Your task to perform on an android device: turn off location history Image 0: 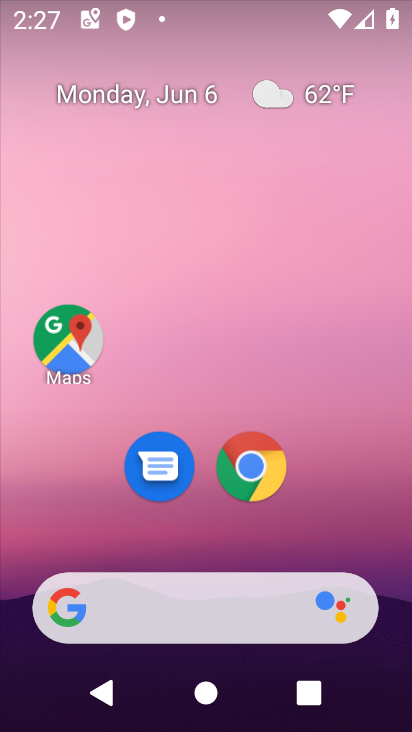
Step 0: drag from (256, 711) to (194, 252)
Your task to perform on an android device: turn off location history Image 1: 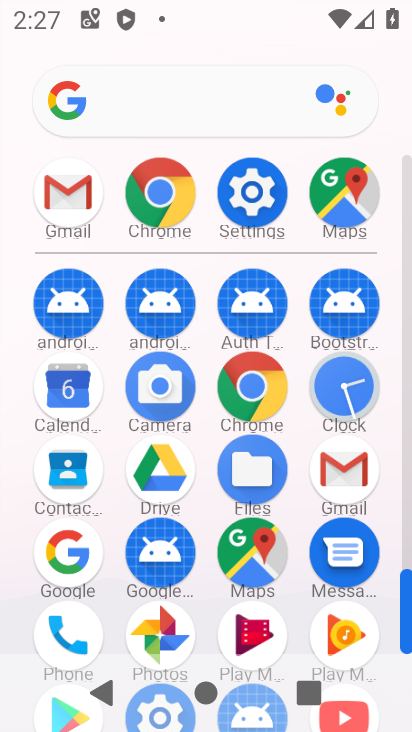
Step 1: click (247, 187)
Your task to perform on an android device: turn off location history Image 2: 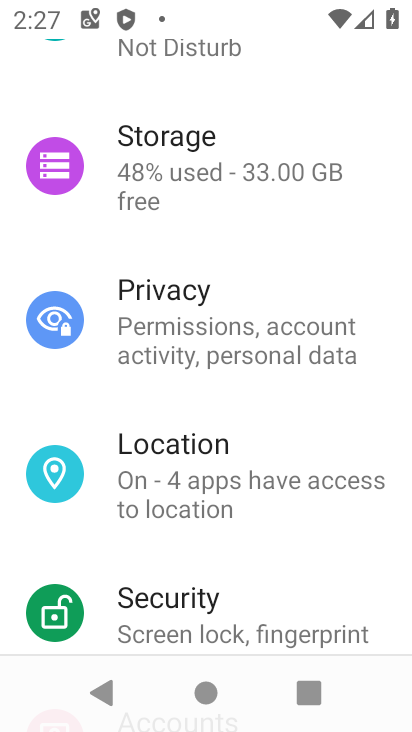
Step 2: drag from (169, 456) to (156, 163)
Your task to perform on an android device: turn off location history Image 3: 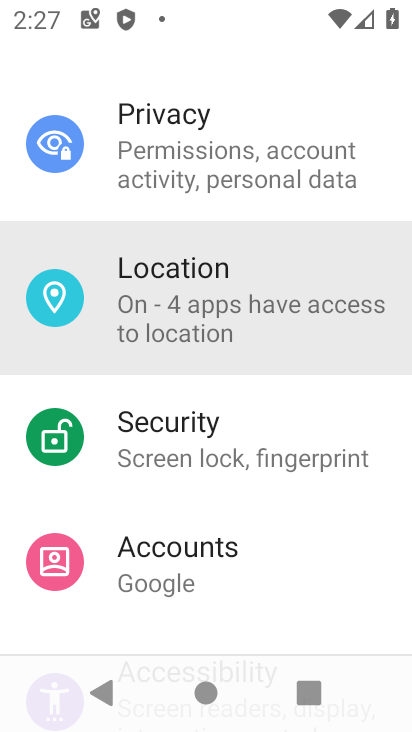
Step 3: drag from (200, 400) to (171, 164)
Your task to perform on an android device: turn off location history Image 4: 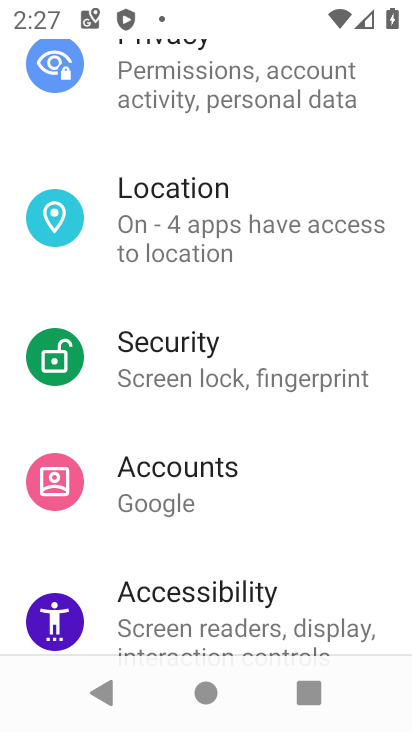
Step 4: drag from (182, 448) to (184, 186)
Your task to perform on an android device: turn off location history Image 5: 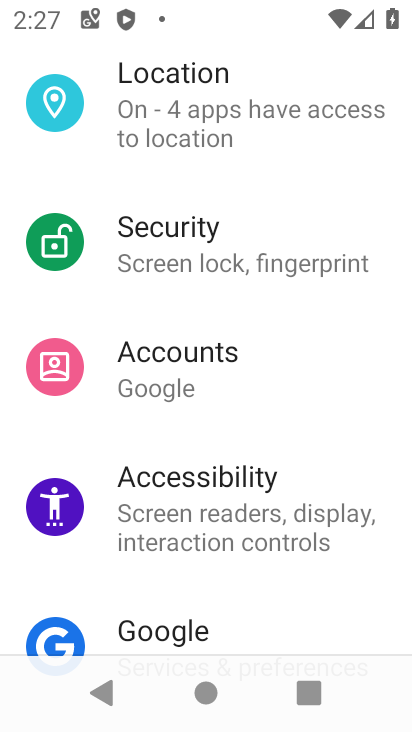
Step 5: drag from (180, 344) to (180, 210)
Your task to perform on an android device: turn off location history Image 6: 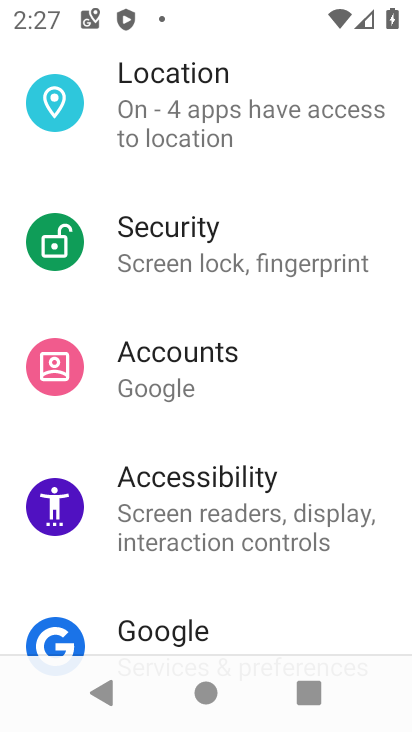
Step 6: drag from (164, 208) to (164, 3)
Your task to perform on an android device: turn off location history Image 7: 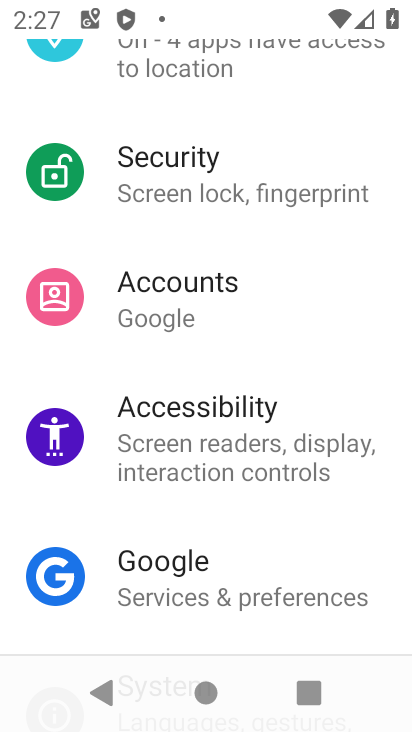
Step 7: drag from (145, 211) to (147, 684)
Your task to perform on an android device: turn off location history Image 8: 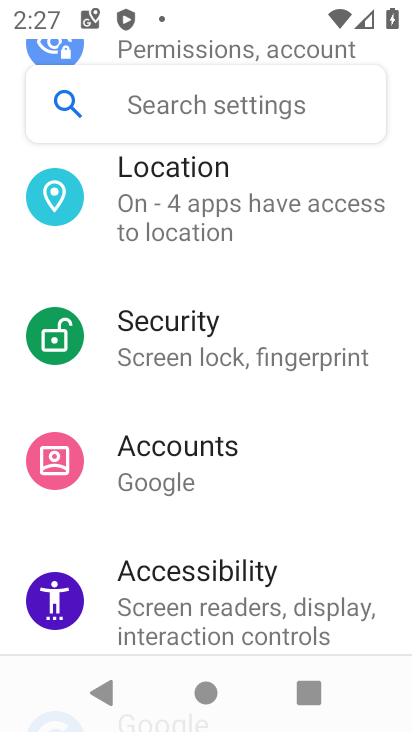
Step 8: drag from (136, 333) to (172, 651)
Your task to perform on an android device: turn off location history Image 9: 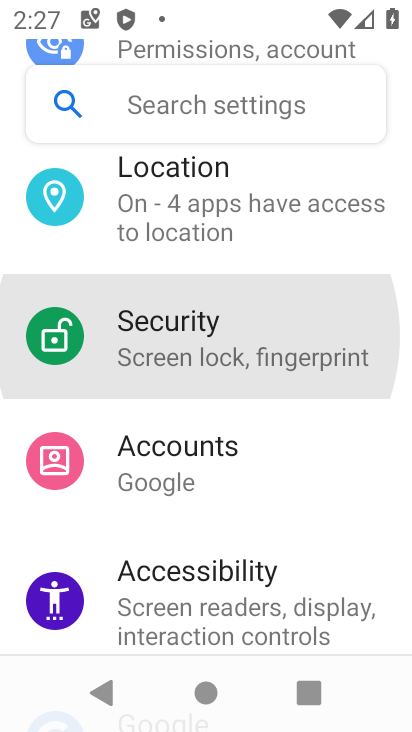
Step 9: drag from (172, 295) to (217, 578)
Your task to perform on an android device: turn off location history Image 10: 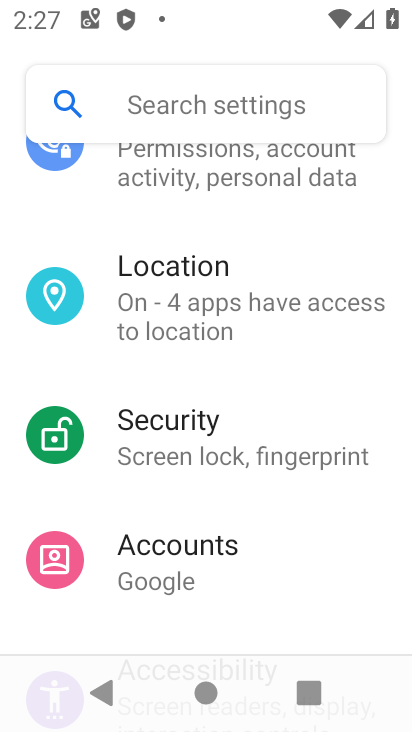
Step 10: drag from (178, 224) to (186, 382)
Your task to perform on an android device: turn off location history Image 11: 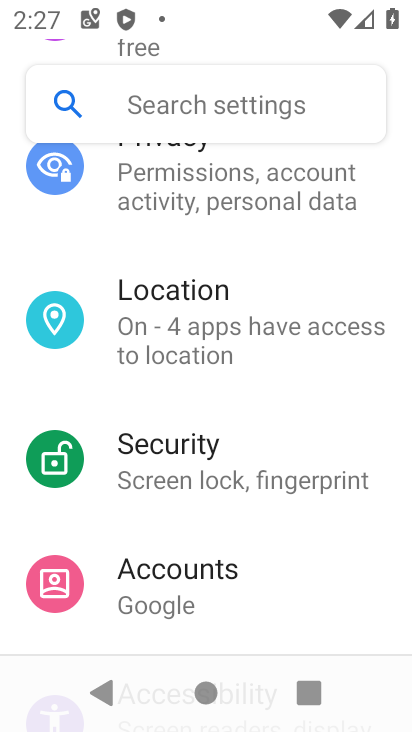
Step 11: click (183, 323)
Your task to perform on an android device: turn off location history Image 12: 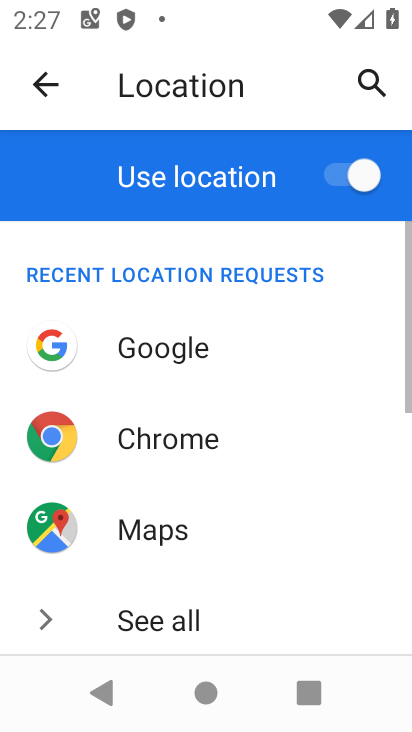
Step 12: drag from (200, 544) to (200, 223)
Your task to perform on an android device: turn off location history Image 13: 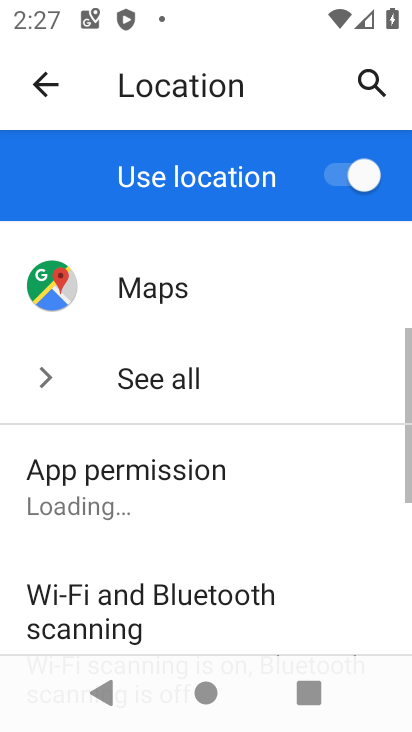
Step 13: drag from (200, 397) to (211, 208)
Your task to perform on an android device: turn off location history Image 14: 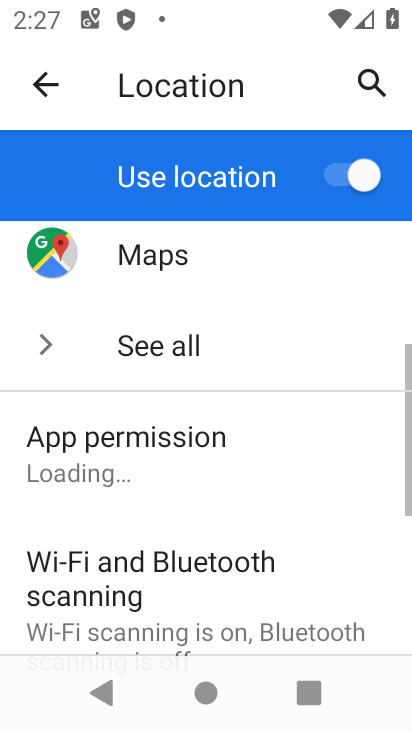
Step 14: drag from (229, 436) to (229, 211)
Your task to perform on an android device: turn off location history Image 15: 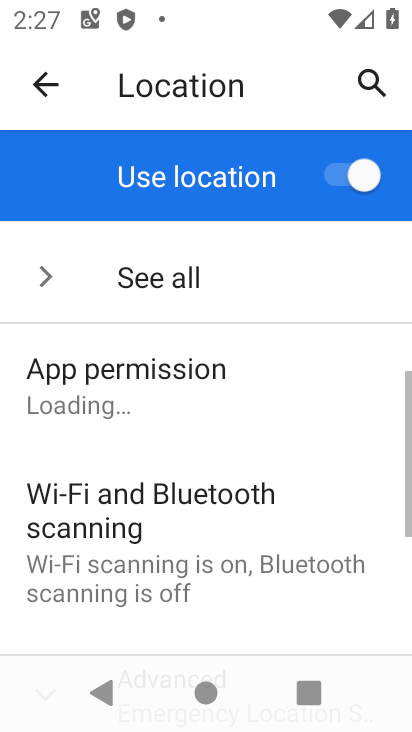
Step 15: drag from (211, 466) to (209, 333)
Your task to perform on an android device: turn off location history Image 16: 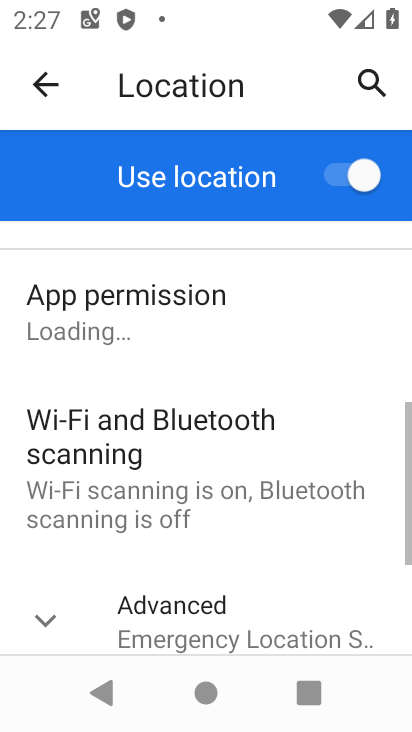
Step 16: drag from (230, 494) to (218, 275)
Your task to perform on an android device: turn off location history Image 17: 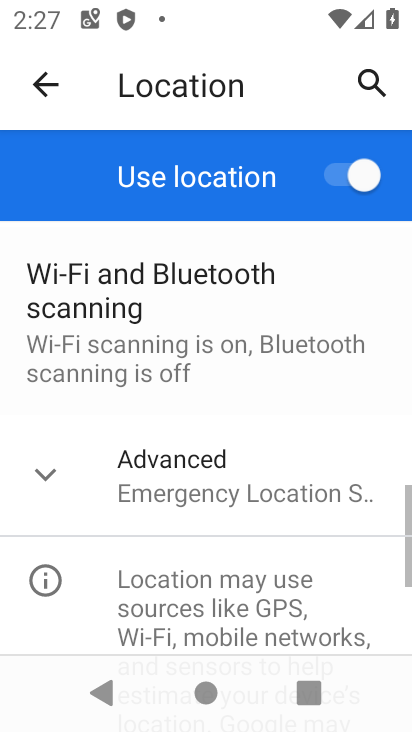
Step 17: drag from (223, 480) to (245, 306)
Your task to perform on an android device: turn off location history Image 18: 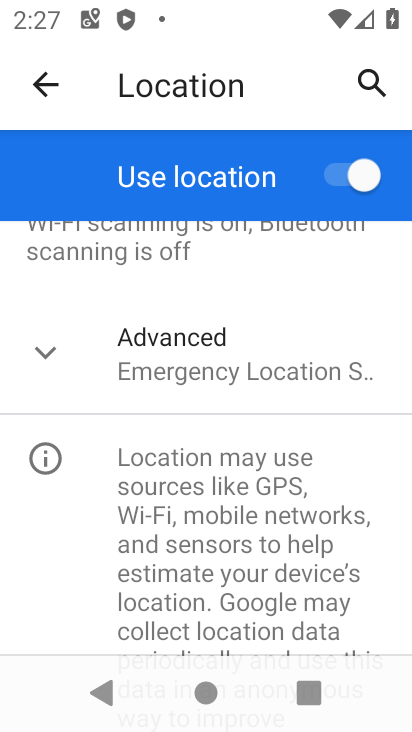
Step 18: click (170, 357)
Your task to perform on an android device: turn off location history Image 19: 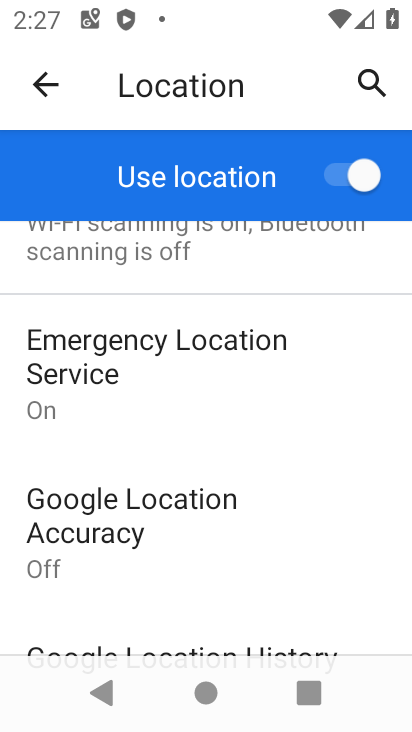
Step 19: drag from (164, 504) to (164, 205)
Your task to perform on an android device: turn off location history Image 20: 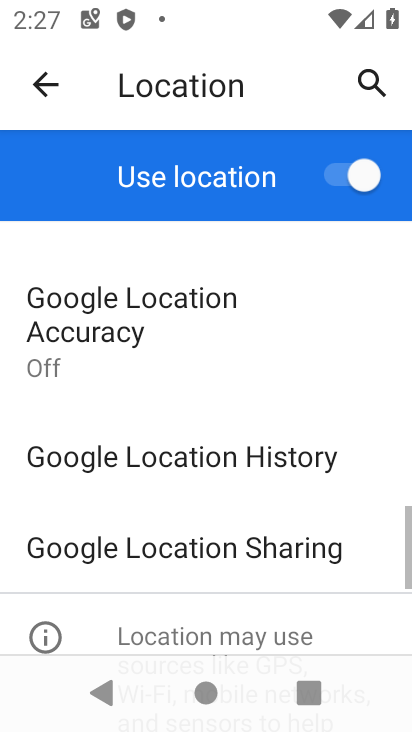
Step 20: drag from (189, 543) to (189, 263)
Your task to perform on an android device: turn off location history Image 21: 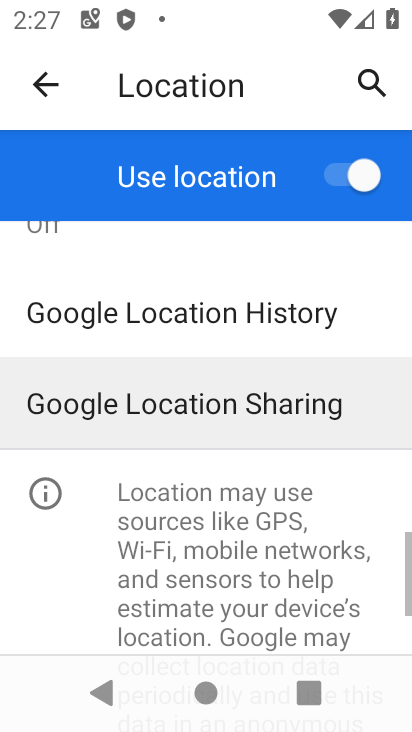
Step 21: drag from (185, 415) to (185, 291)
Your task to perform on an android device: turn off location history Image 22: 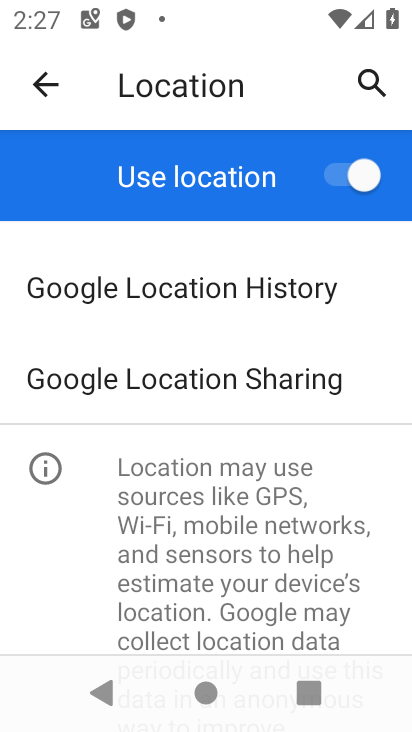
Step 22: click (102, 283)
Your task to perform on an android device: turn off location history Image 23: 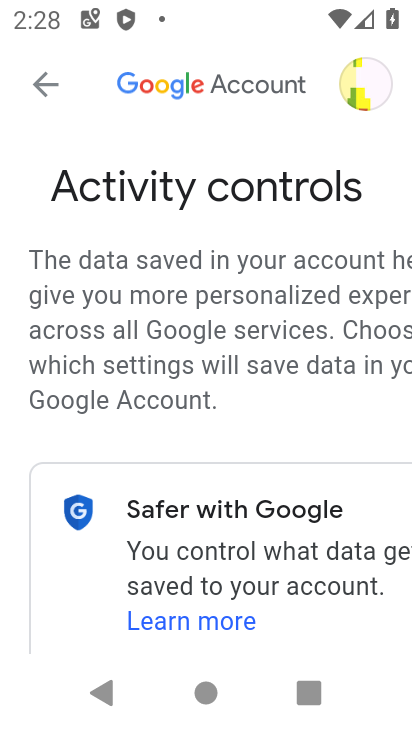
Step 23: drag from (219, 371) to (251, 42)
Your task to perform on an android device: turn off location history Image 24: 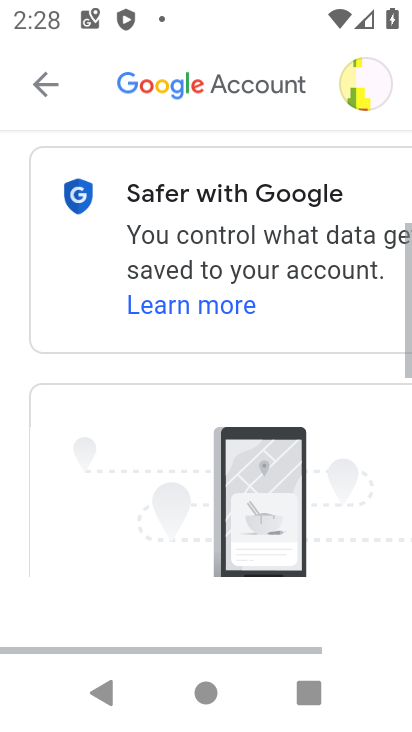
Step 24: drag from (224, 391) to (222, 138)
Your task to perform on an android device: turn off location history Image 25: 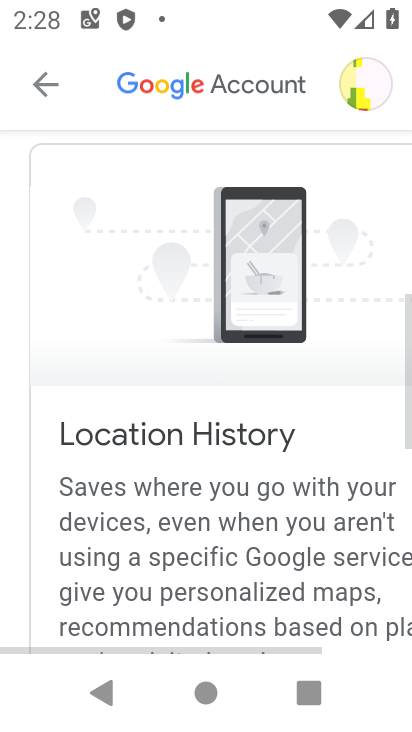
Step 25: drag from (175, 296) to (175, 127)
Your task to perform on an android device: turn off location history Image 26: 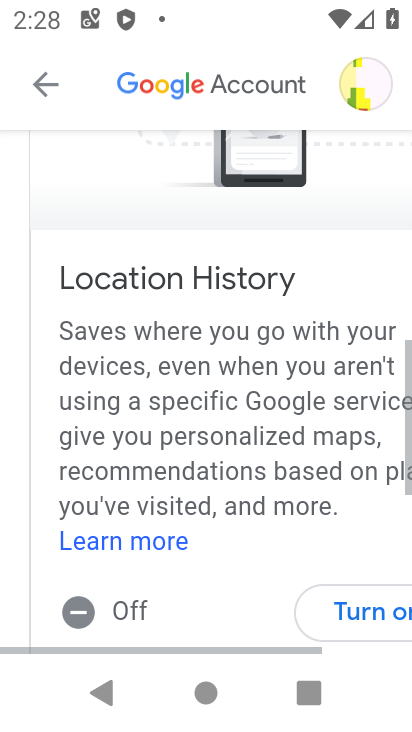
Step 26: drag from (204, 328) to (199, 141)
Your task to perform on an android device: turn off location history Image 27: 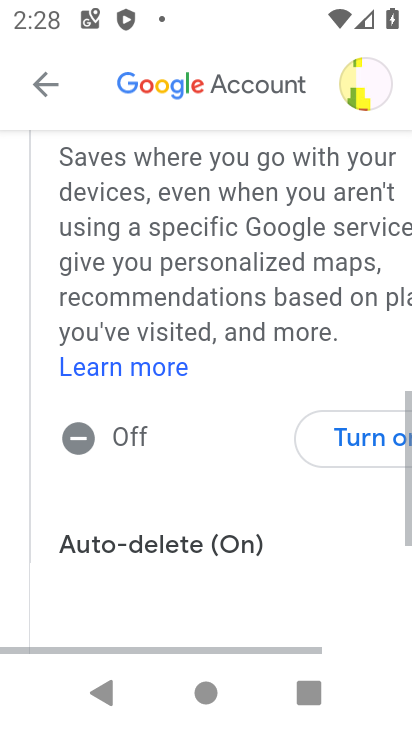
Step 27: drag from (166, 527) to (161, 213)
Your task to perform on an android device: turn off location history Image 28: 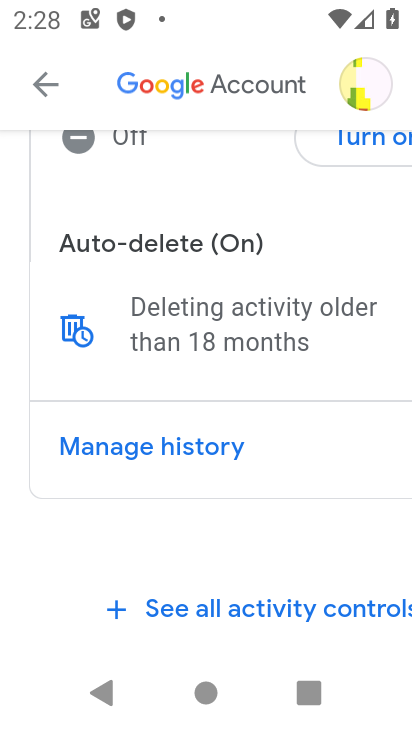
Step 28: drag from (319, 578) to (273, 241)
Your task to perform on an android device: turn off location history Image 29: 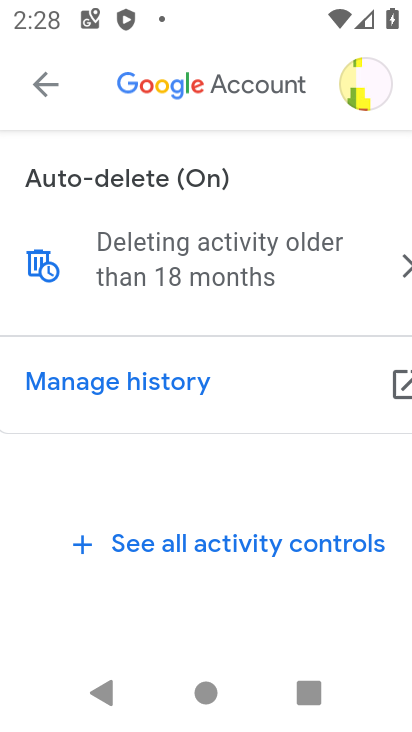
Step 29: drag from (196, 452) to (172, 125)
Your task to perform on an android device: turn off location history Image 30: 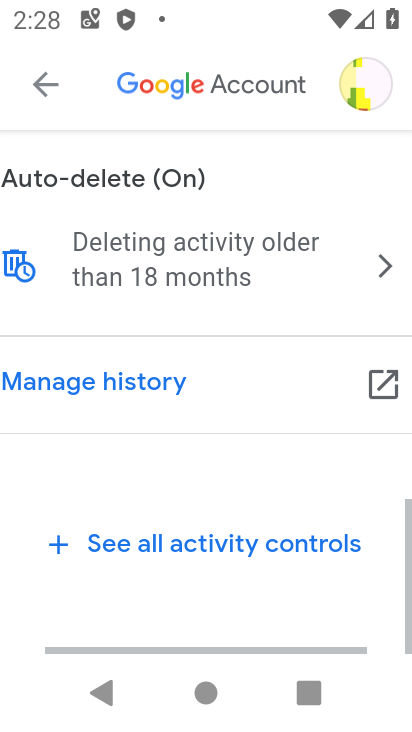
Step 30: drag from (182, 256) to (191, 195)
Your task to perform on an android device: turn off location history Image 31: 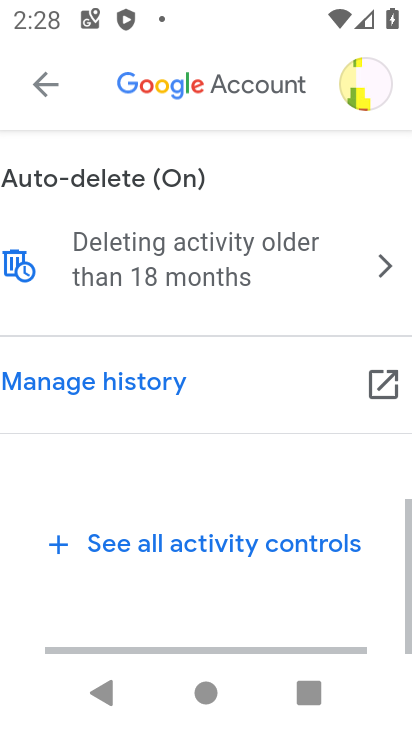
Step 31: drag from (218, 230) to (233, 169)
Your task to perform on an android device: turn off location history Image 32: 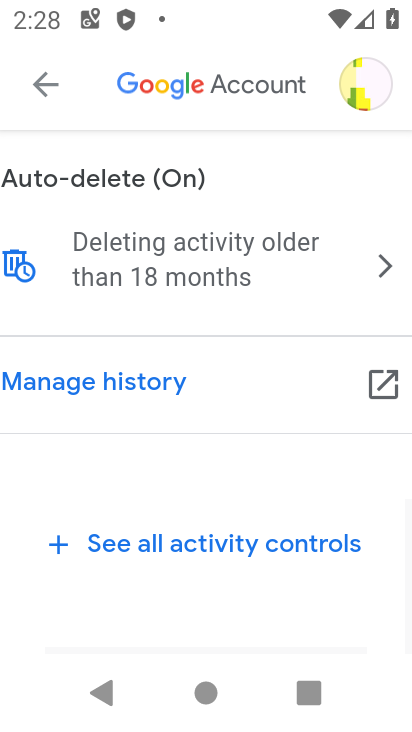
Step 32: drag from (210, 332) to (210, 163)
Your task to perform on an android device: turn off location history Image 33: 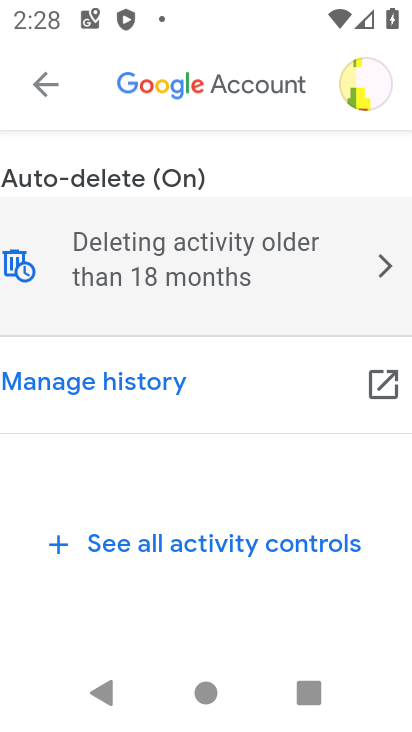
Step 33: click (26, 271)
Your task to perform on an android device: turn off location history Image 34: 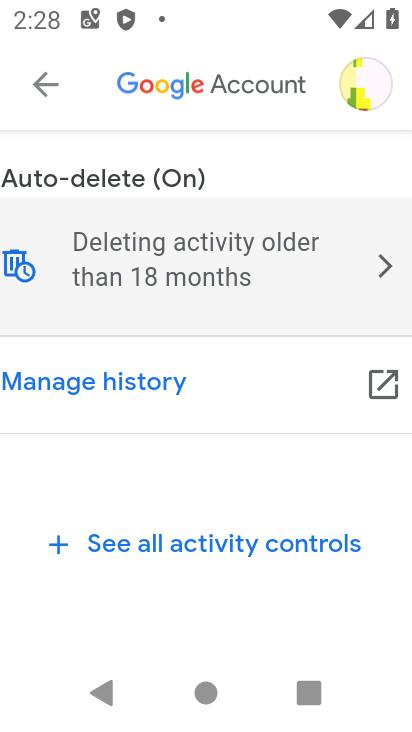
Step 34: click (26, 271)
Your task to perform on an android device: turn off location history Image 35: 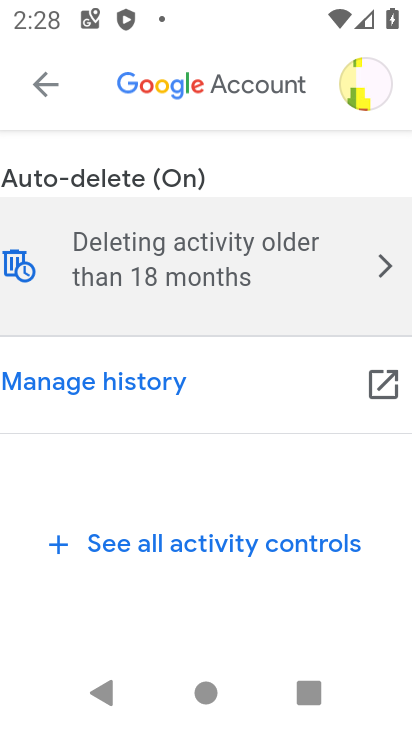
Step 35: click (26, 271)
Your task to perform on an android device: turn off location history Image 36: 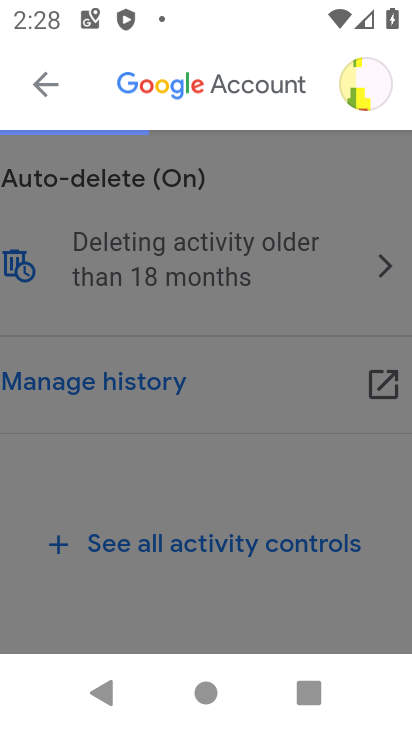
Step 36: click (26, 271)
Your task to perform on an android device: turn off location history Image 37: 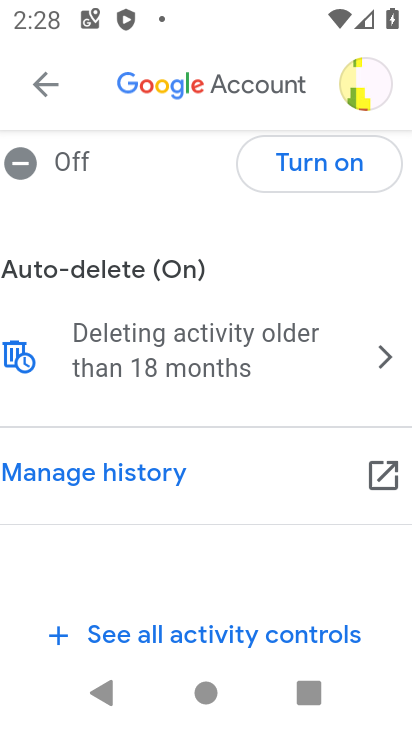
Step 37: task complete